Your task to perform on an android device: turn off wifi Image 0: 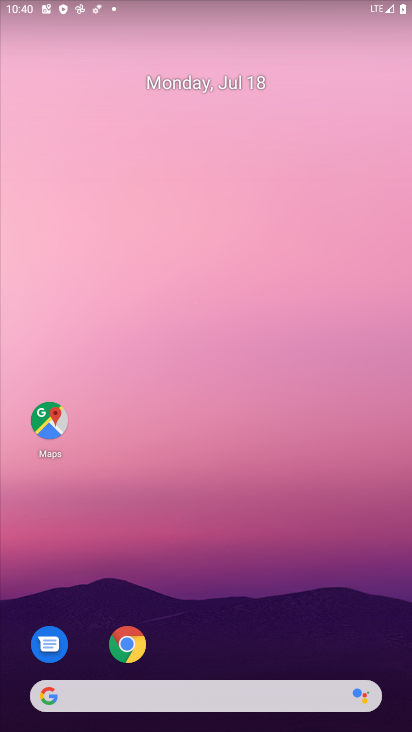
Step 0: drag from (362, 621) to (356, 144)
Your task to perform on an android device: turn off wifi Image 1: 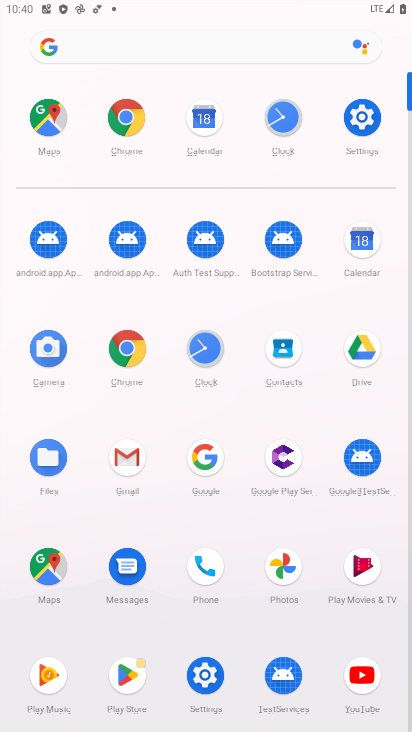
Step 1: click (368, 127)
Your task to perform on an android device: turn off wifi Image 2: 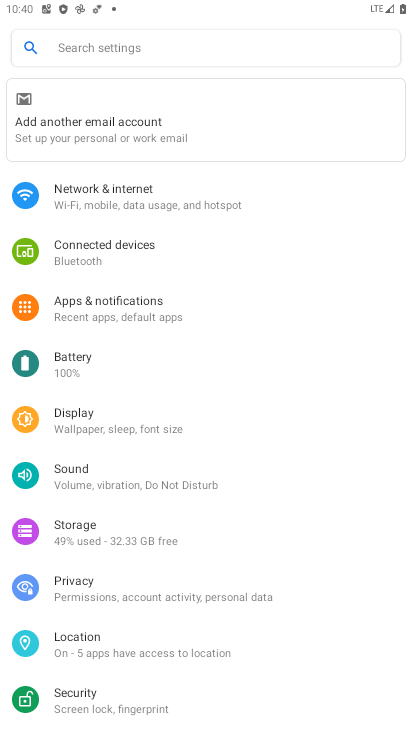
Step 2: drag from (353, 414) to (345, 327)
Your task to perform on an android device: turn off wifi Image 3: 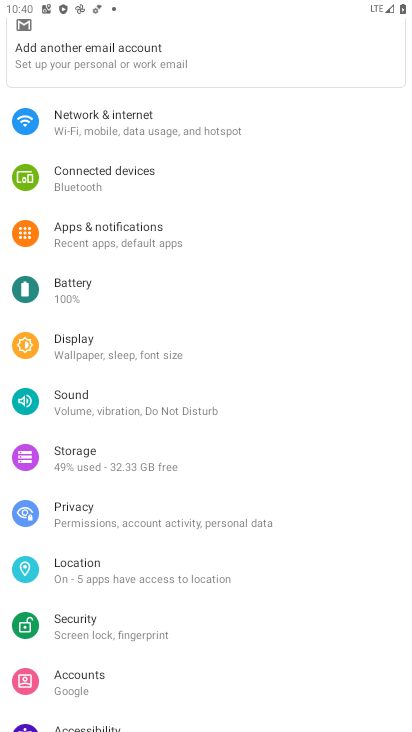
Step 3: drag from (345, 433) to (345, 356)
Your task to perform on an android device: turn off wifi Image 4: 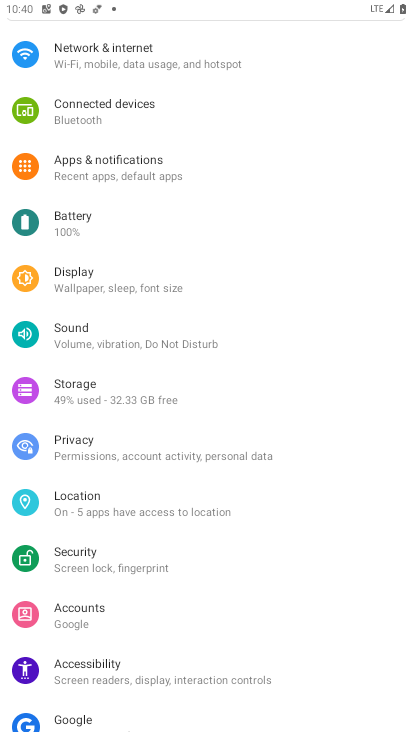
Step 4: drag from (333, 444) to (331, 349)
Your task to perform on an android device: turn off wifi Image 5: 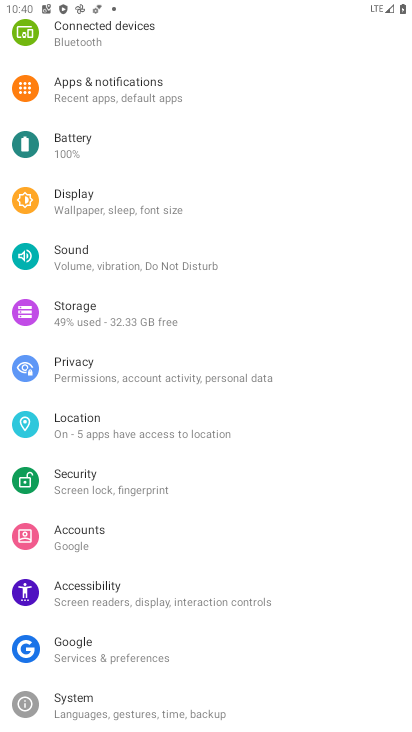
Step 5: drag from (331, 473) to (319, 328)
Your task to perform on an android device: turn off wifi Image 6: 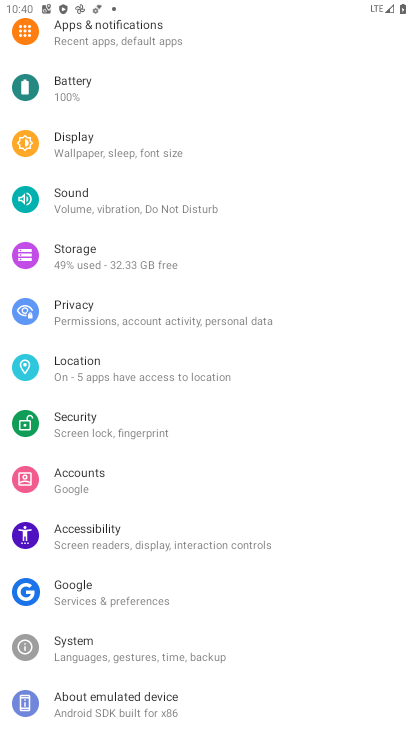
Step 6: drag from (316, 272) to (315, 373)
Your task to perform on an android device: turn off wifi Image 7: 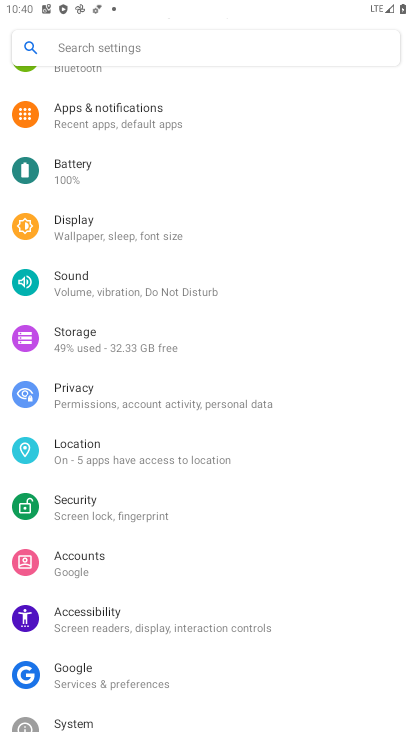
Step 7: drag from (322, 262) to (320, 369)
Your task to perform on an android device: turn off wifi Image 8: 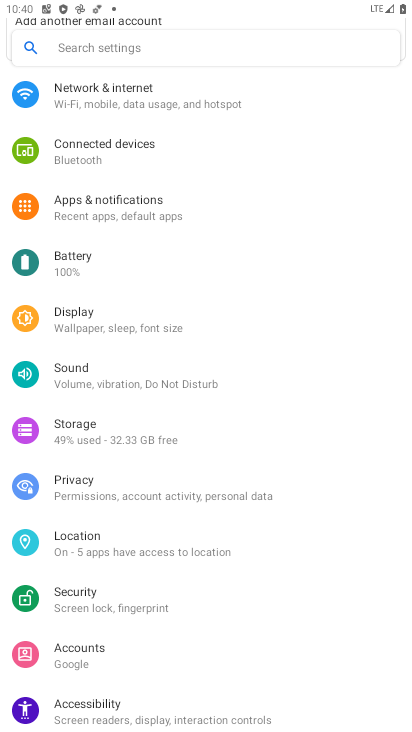
Step 8: drag from (313, 260) to (315, 403)
Your task to perform on an android device: turn off wifi Image 9: 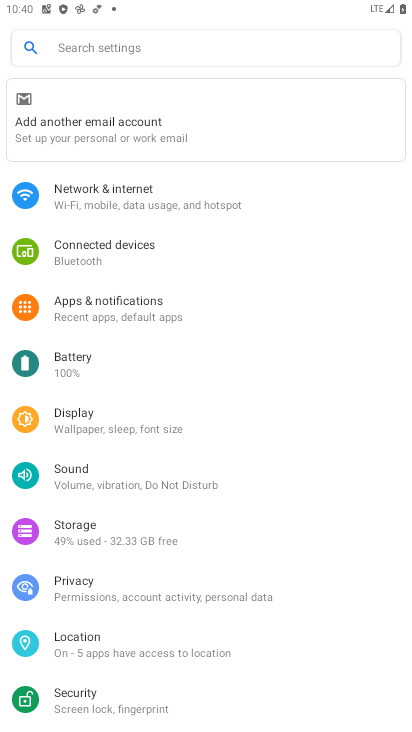
Step 9: click (254, 200)
Your task to perform on an android device: turn off wifi Image 10: 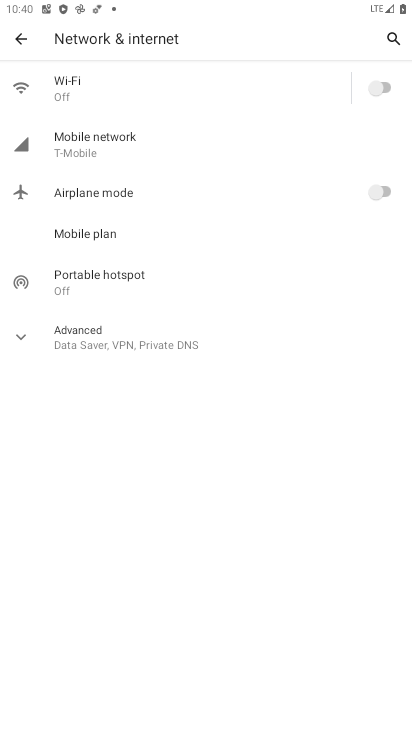
Step 10: task complete